Your task to perform on an android device: Go to Yahoo.com Image 0: 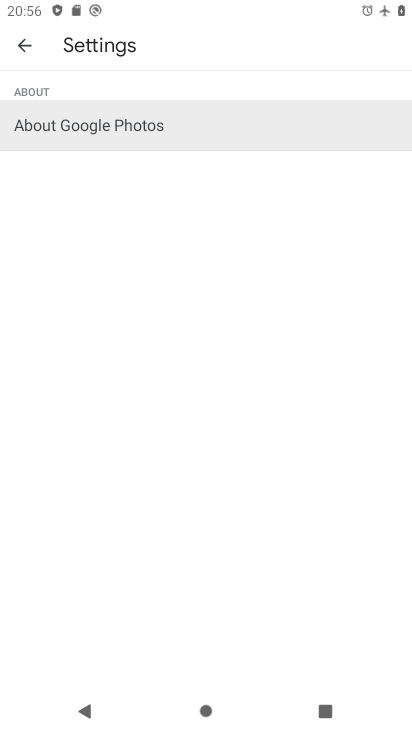
Step 0: press home button
Your task to perform on an android device: Go to Yahoo.com Image 1: 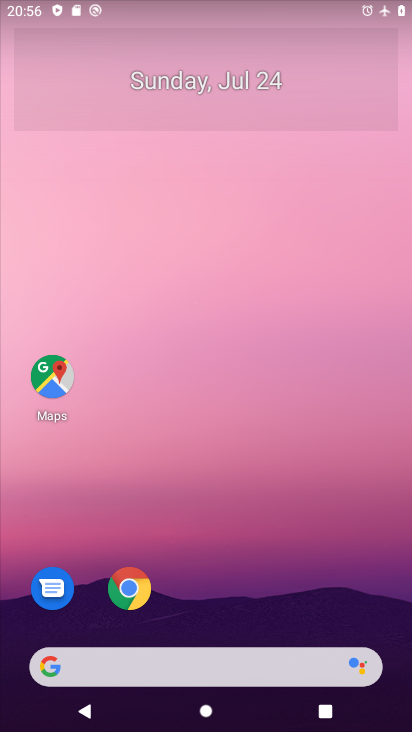
Step 1: click (297, 124)
Your task to perform on an android device: Go to Yahoo.com Image 2: 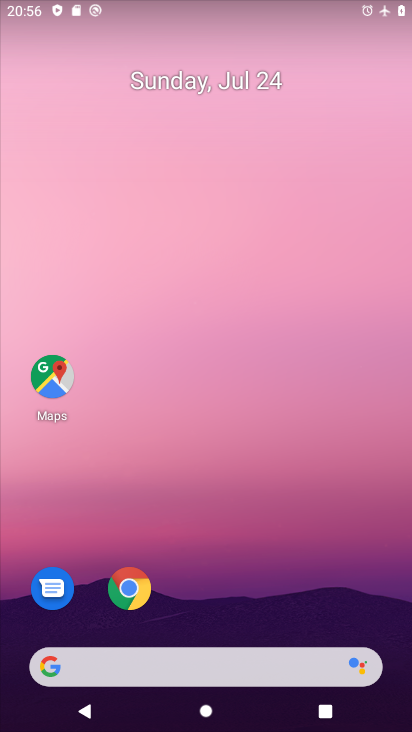
Step 2: drag from (246, 578) to (240, 63)
Your task to perform on an android device: Go to Yahoo.com Image 3: 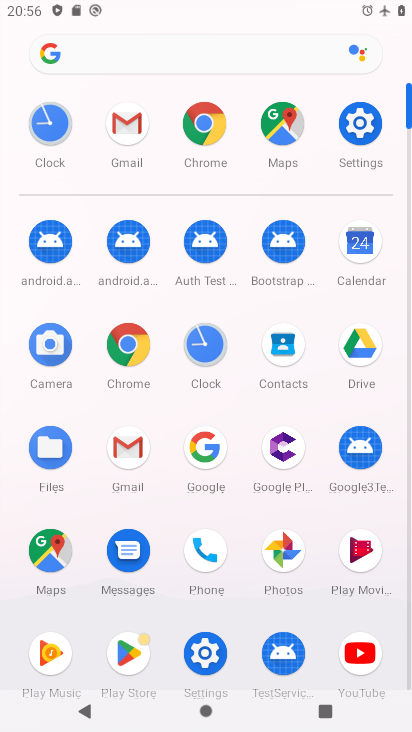
Step 3: click (184, 124)
Your task to perform on an android device: Go to Yahoo.com Image 4: 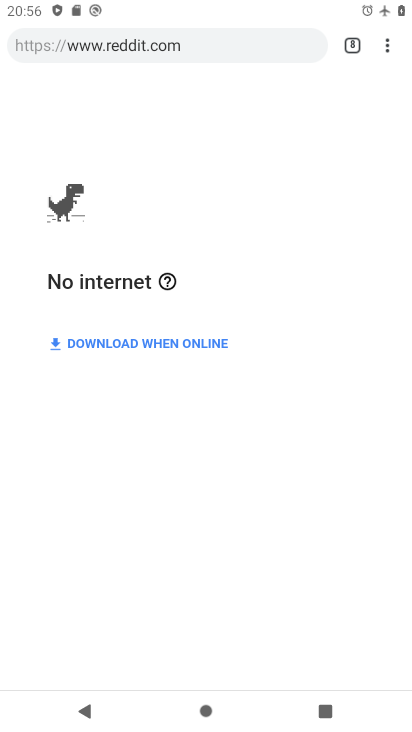
Step 4: click (396, 36)
Your task to perform on an android device: Go to Yahoo.com Image 5: 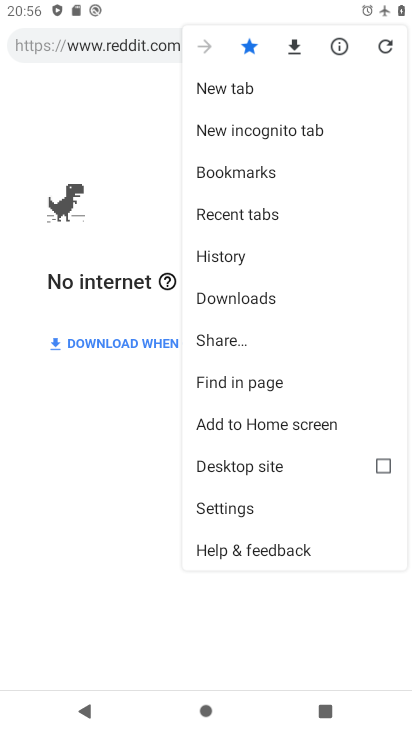
Step 5: click (227, 89)
Your task to perform on an android device: Go to Yahoo.com Image 6: 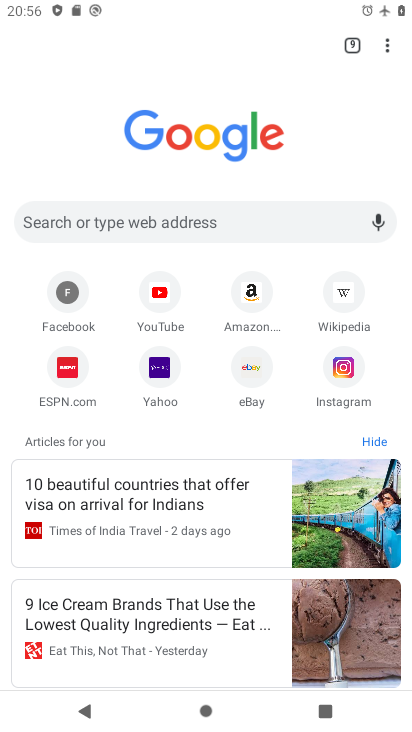
Step 6: click (144, 361)
Your task to perform on an android device: Go to Yahoo.com Image 7: 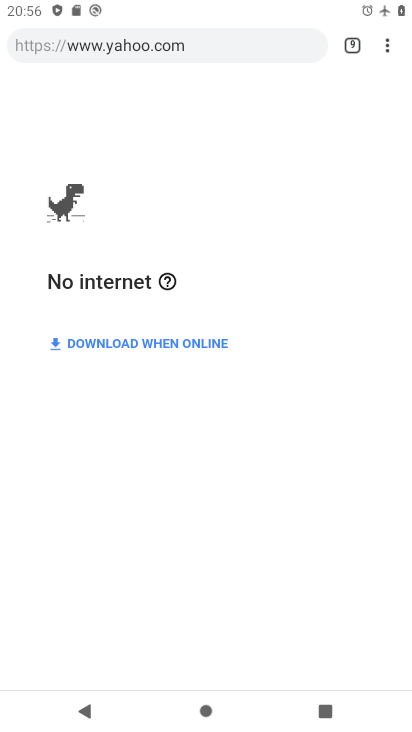
Step 7: task complete